Your task to perform on an android device: What's the news in Guyana? Image 0: 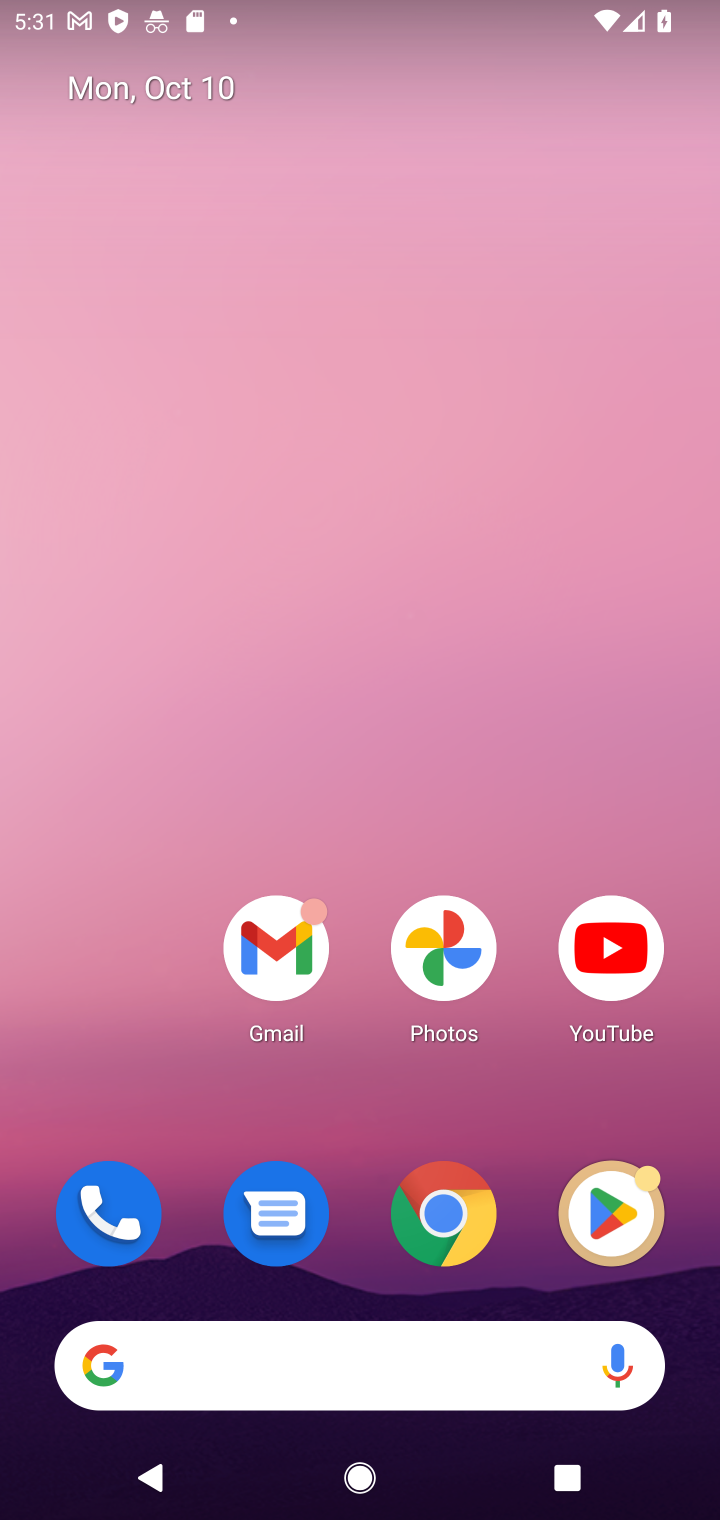
Step 0: click (162, 1356)
Your task to perform on an android device: What's the news in Guyana? Image 1: 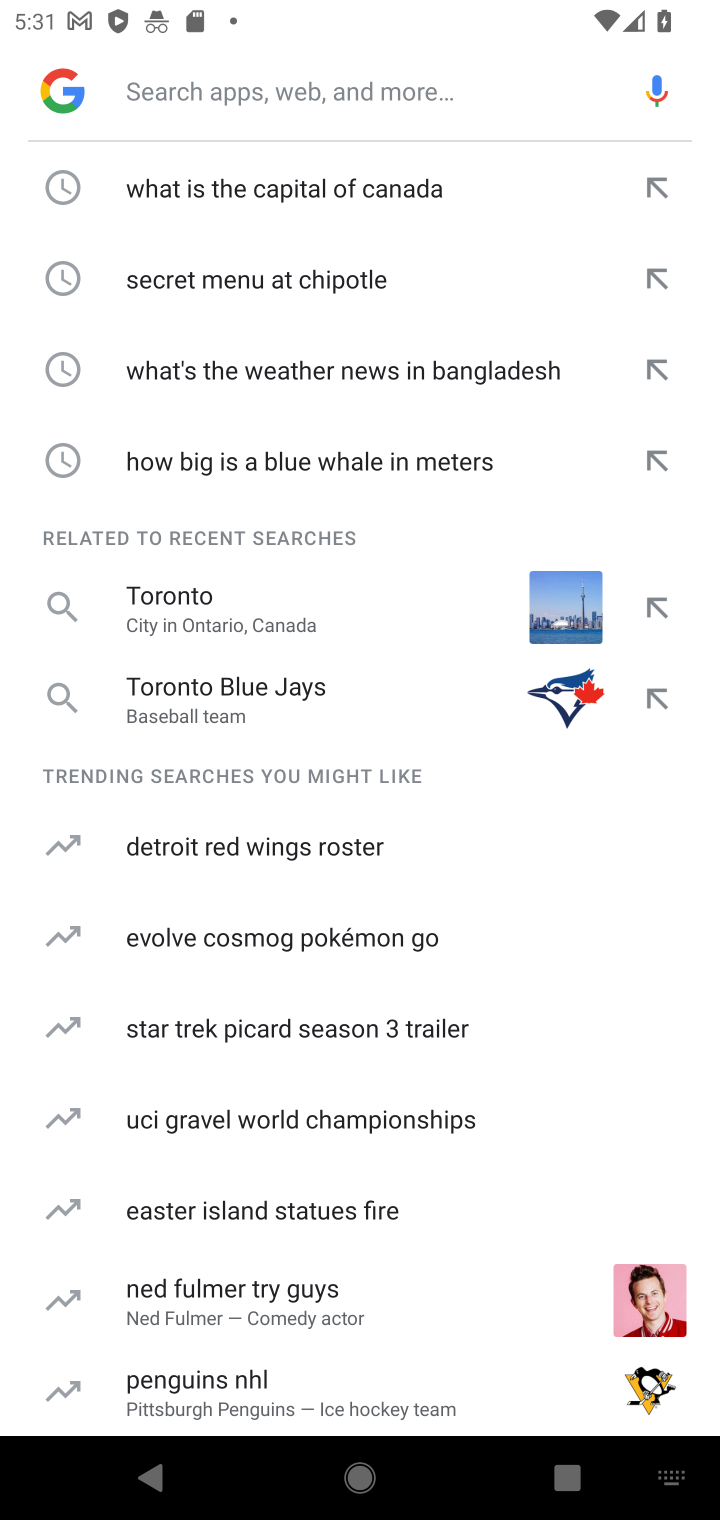
Step 1: type "What's the news in Guyana"
Your task to perform on an android device: What's the news in Guyana? Image 2: 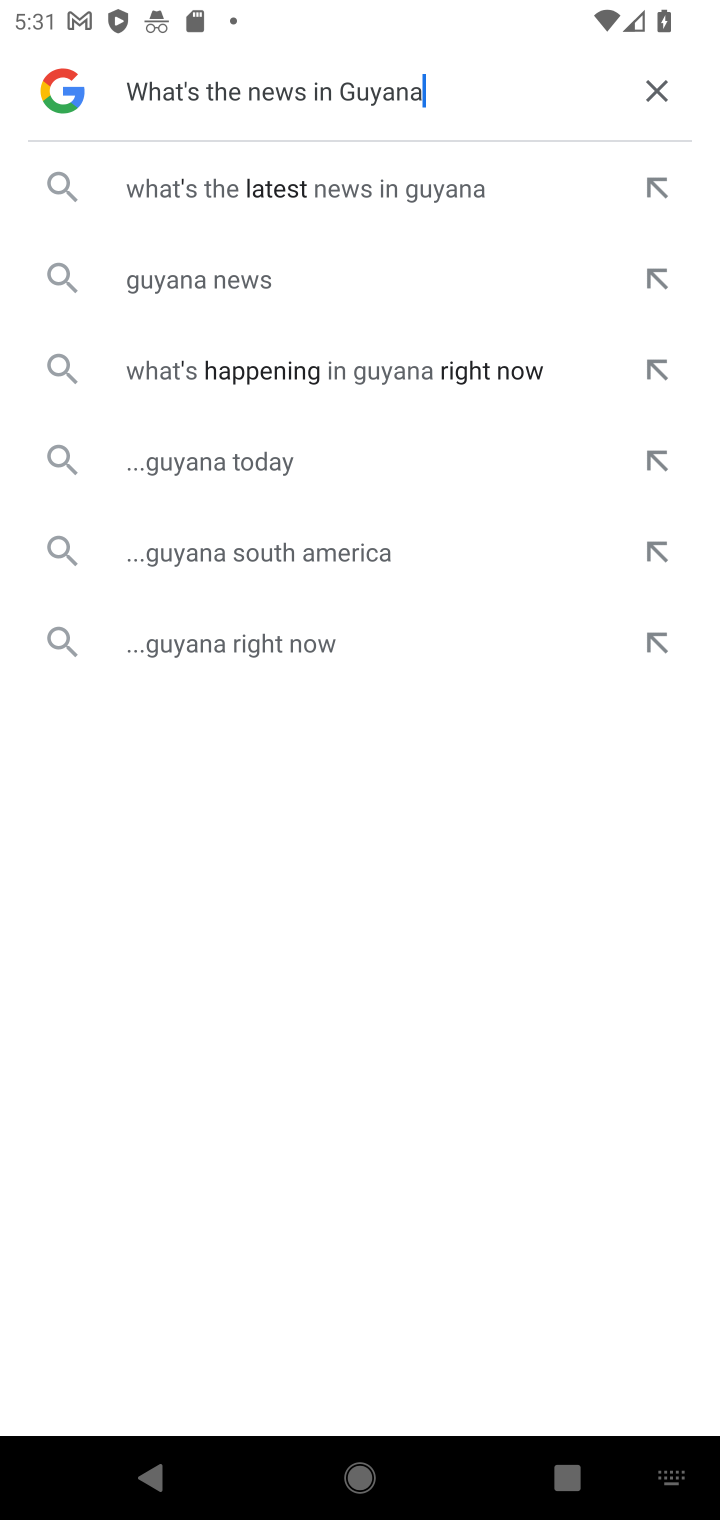
Step 2: click (305, 186)
Your task to perform on an android device: What's the news in Guyana? Image 3: 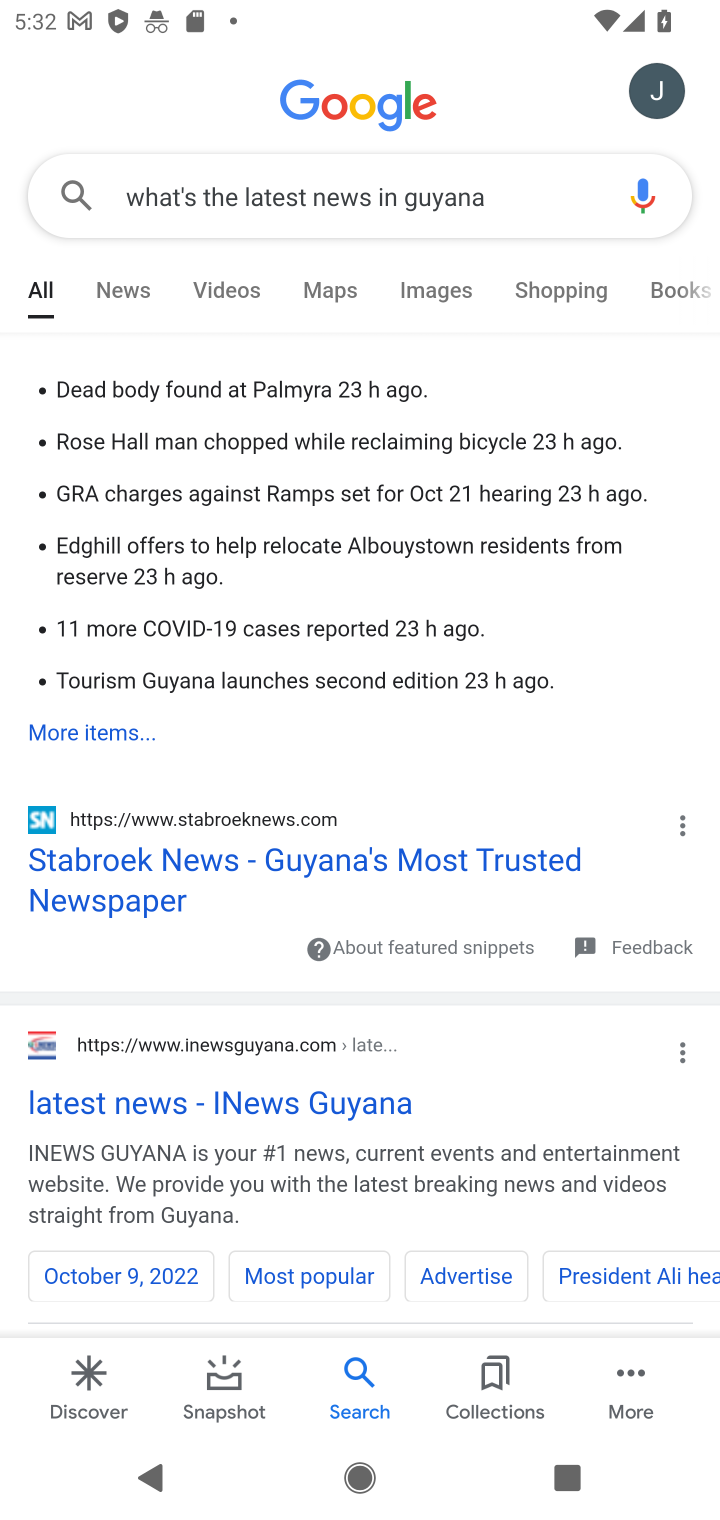
Step 3: task complete